Your task to perform on an android device: snooze an email in the gmail app Image 0: 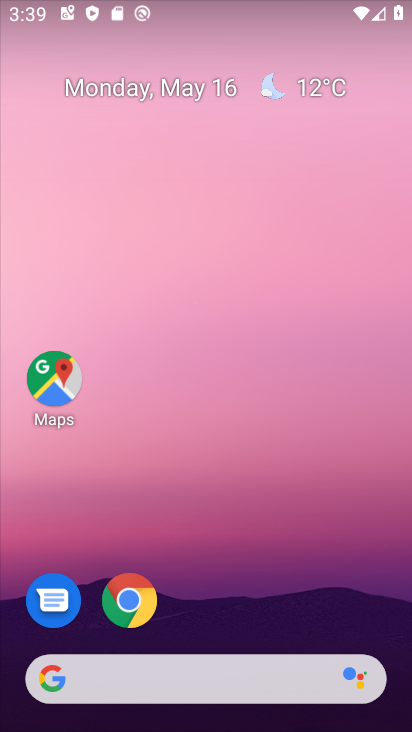
Step 0: drag from (196, 651) to (234, 340)
Your task to perform on an android device: snooze an email in the gmail app Image 1: 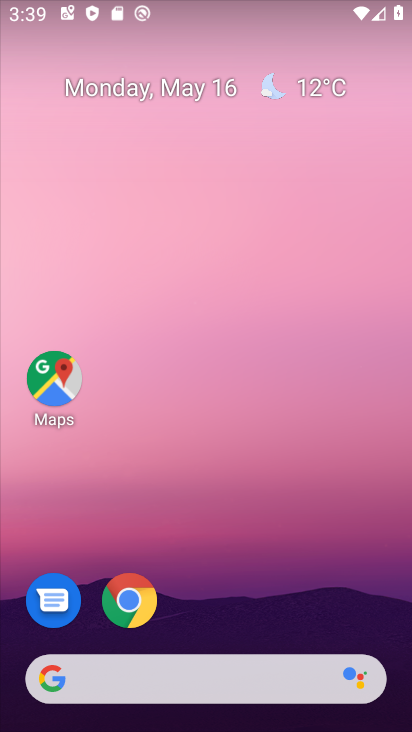
Step 1: drag from (235, 658) to (251, 84)
Your task to perform on an android device: snooze an email in the gmail app Image 2: 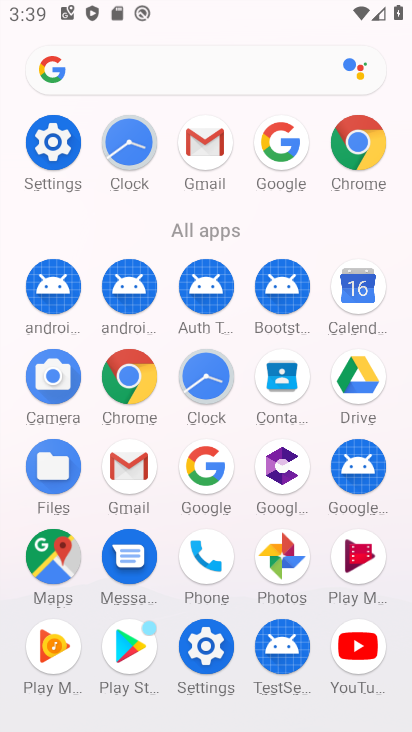
Step 2: click (184, 144)
Your task to perform on an android device: snooze an email in the gmail app Image 3: 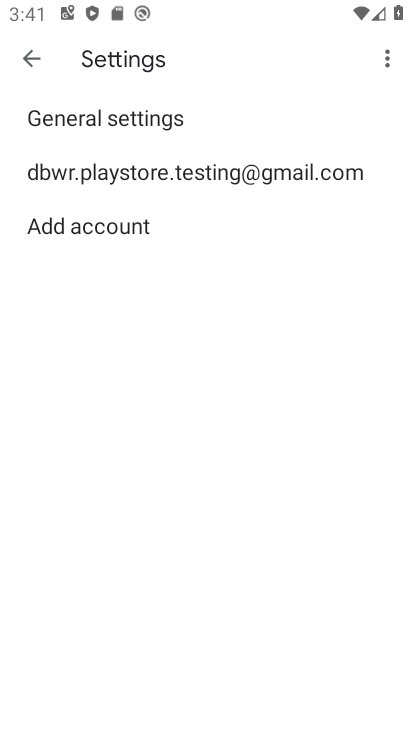
Step 3: click (17, 57)
Your task to perform on an android device: snooze an email in the gmail app Image 4: 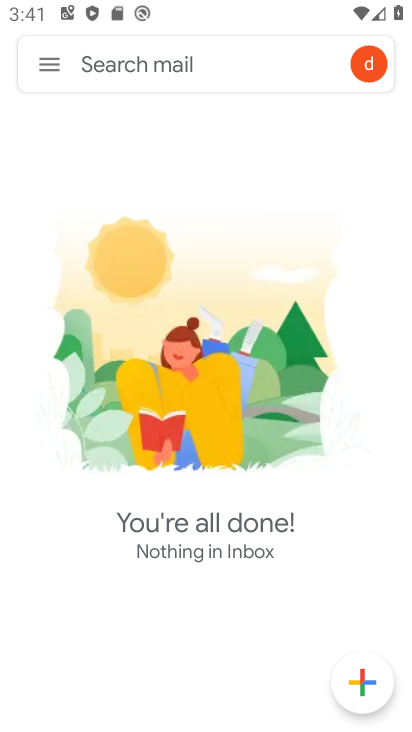
Step 4: click (46, 57)
Your task to perform on an android device: snooze an email in the gmail app Image 5: 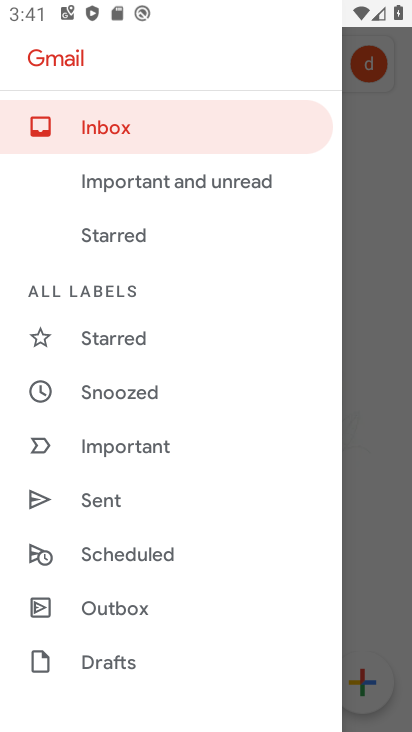
Step 5: click (139, 396)
Your task to perform on an android device: snooze an email in the gmail app Image 6: 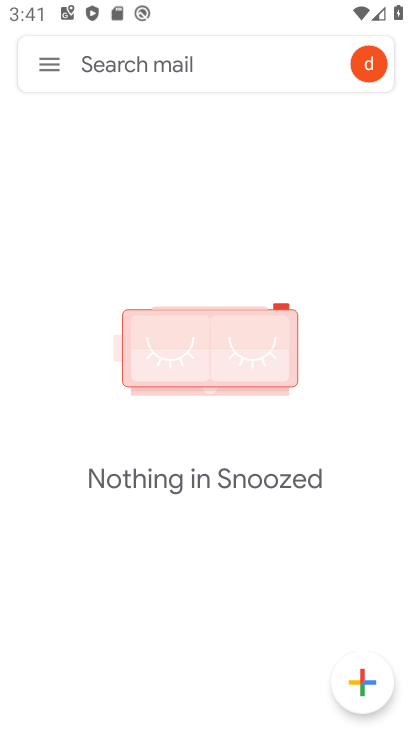
Step 6: task complete